Your task to perform on an android device: open device folders in google photos Image 0: 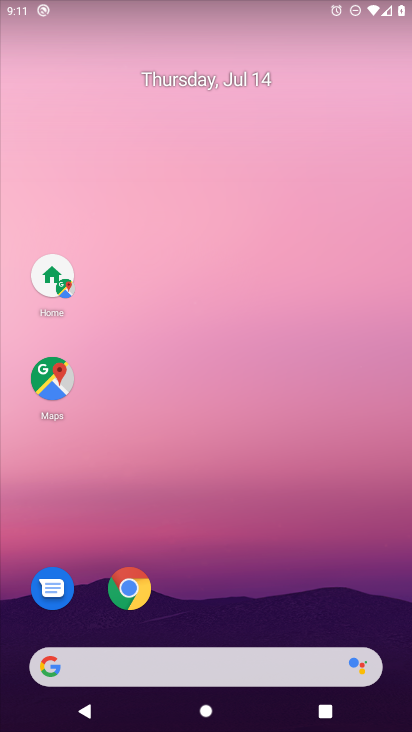
Step 0: drag from (20, 711) to (369, 350)
Your task to perform on an android device: open device folders in google photos Image 1: 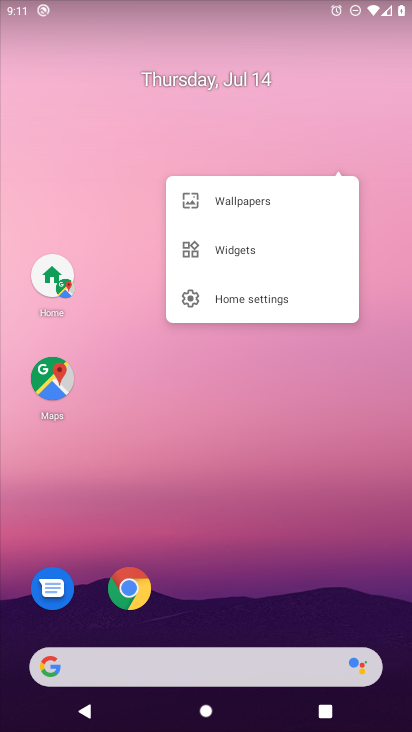
Step 1: task complete